Your task to perform on an android device: add a label to a message in the gmail app Image 0: 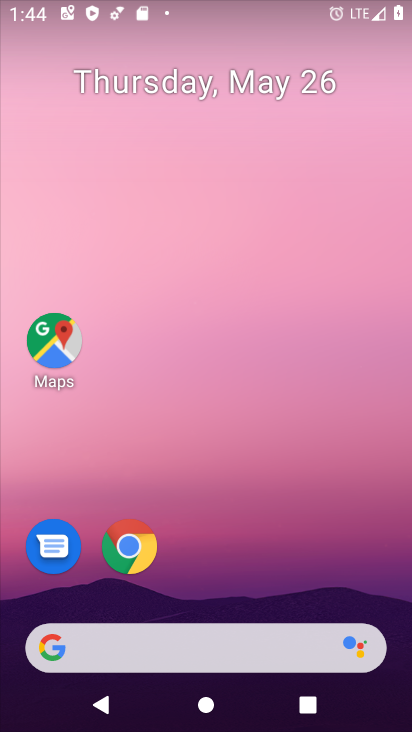
Step 0: drag from (389, 626) to (293, 77)
Your task to perform on an android device: add a label to a message in the gmail app Image 1: 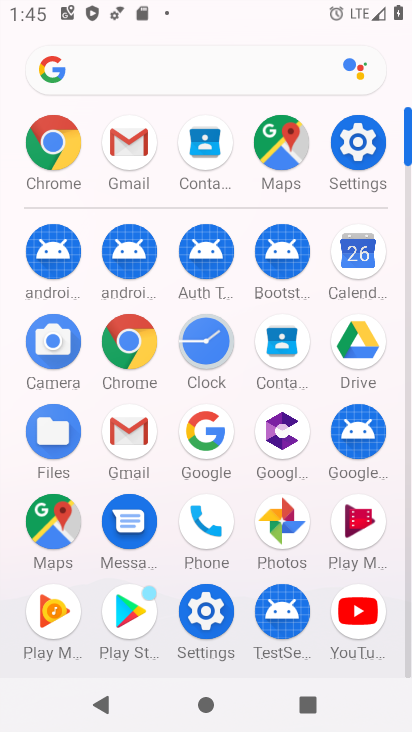
Step 1: click (133, 448)
Your task to perform on an android device: add a label to a message in the gmail app Image 2: 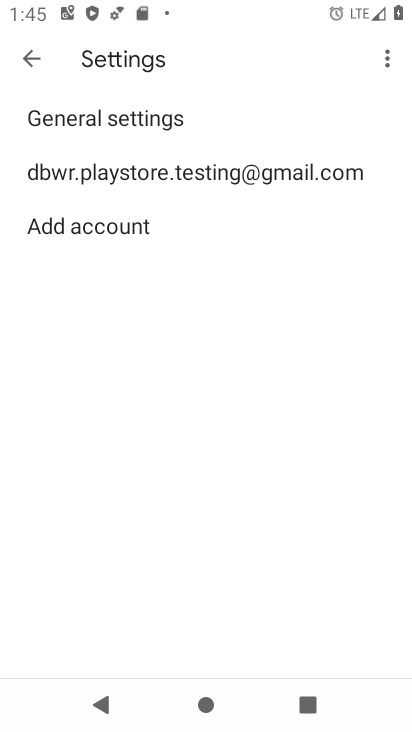
Step 2: task complete